Your task to perform on an android device: Open location settings Image 0: 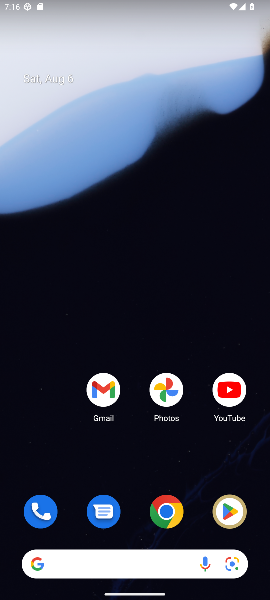
Step 0: drag from (58, 430) to (35, 45)
Your task to perform on an android device: Open location settings Image 1: 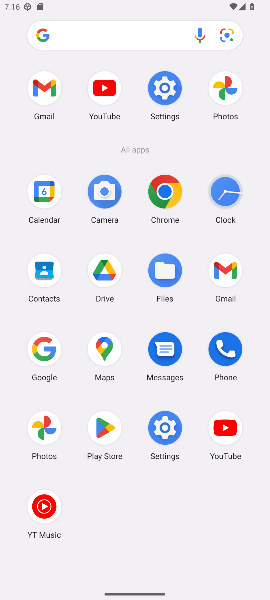
Step 1: click (162, 89)
Your task to perform on an android device: Open location settings Image 2: 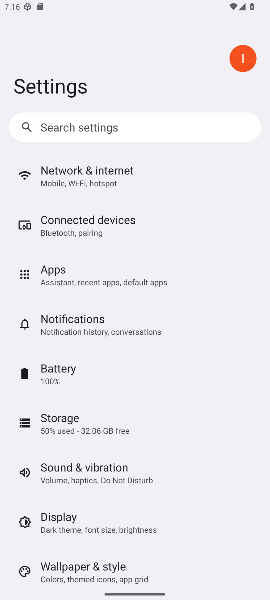
Step 2: drag from (145, 438) to (148, 195)
Your task to perform on an android device: Open location settings Image 3: 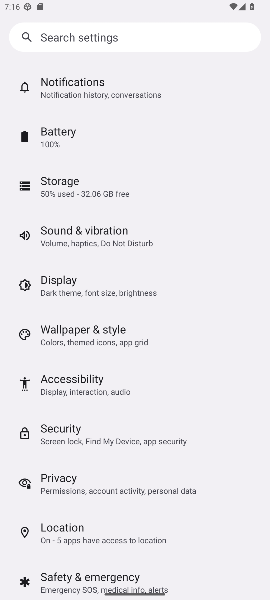
Step 3: click (94, 527)
Your task to perform on an android device: Open location settings Image 4: 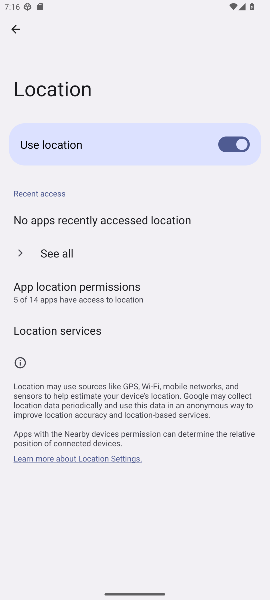
Step 4: task complete